Your task to perform on an android device: turn off javascript in the chrome app Image 0: 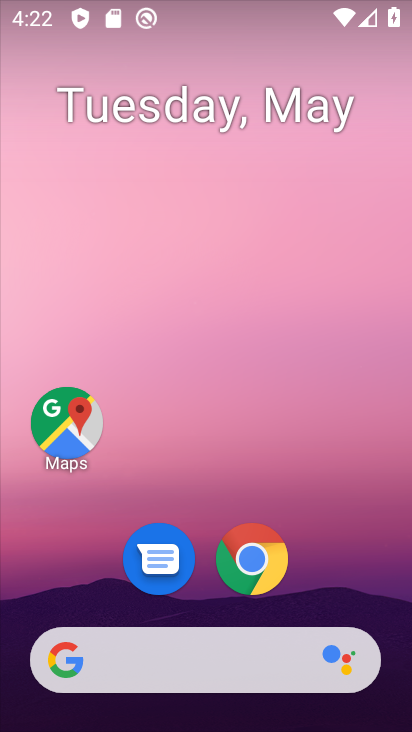
Step 0: click (255, 563)
Your task to perform on an android device: turn off javascript in the chrome app Image 1: 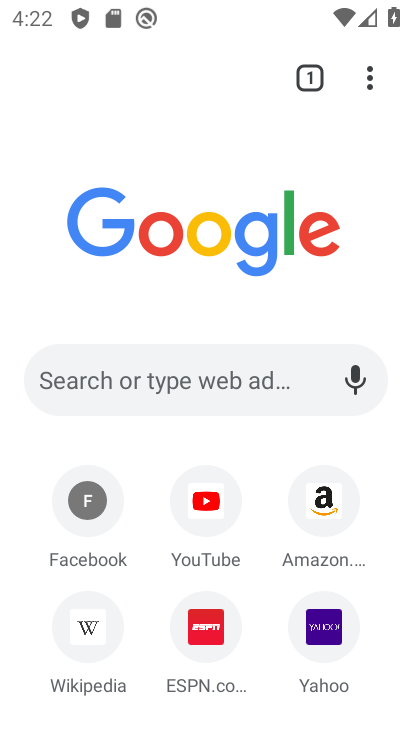
Step 1: click (373, 70)
Your task to perform on an android device: turn off javascript in the chrome app Image 2: 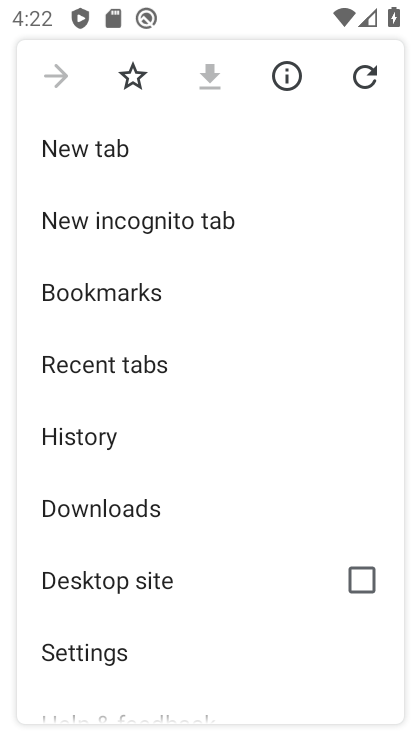
Step 2: click (106, 651)
Your task to perform on an android device: turn off javascript in the chrome app Image 3: 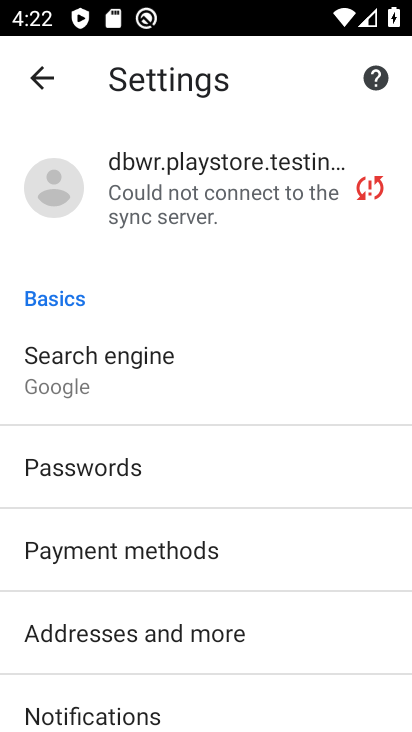
Step 3: drag from (169, 662) to (186, 300)
Your task to perform on an android device: turn off javascript in the chrome app Image 4: 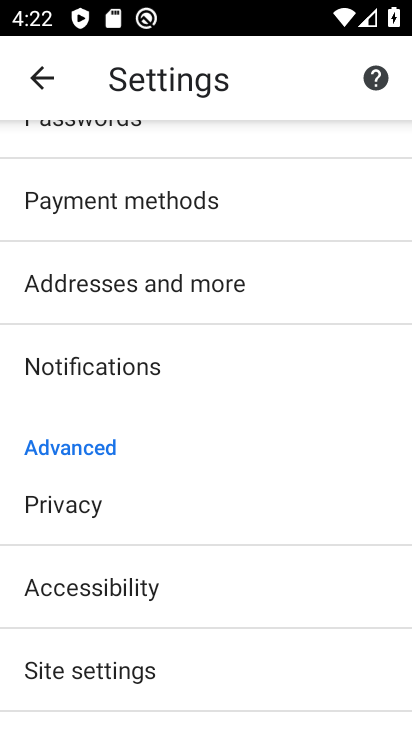
Step 4: click (60, 677)
Your task to perform on an android device: turn off javascript in the chrome app Image 5: 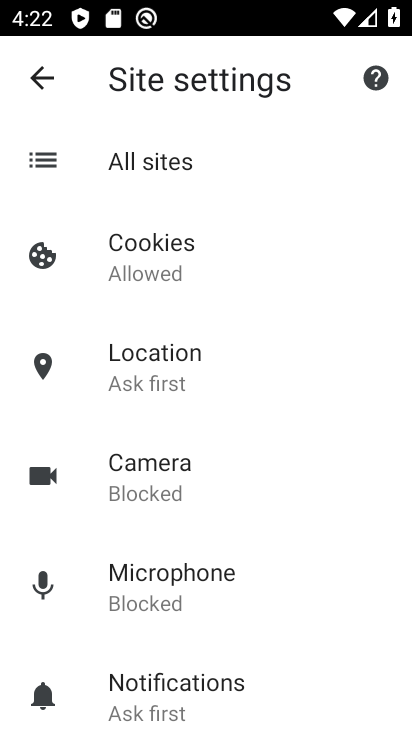
Step 5: drag from (146, 677) to (151, 242)
Your task to perform on an android device: turn off javascript in the chrome app Image 6: 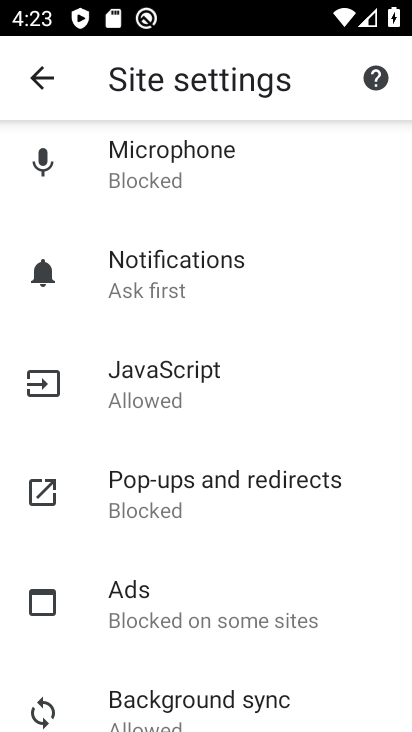
Step 6: click (138, 402)
Your task to perform on an android device: turn off javascript in the chrome app Image 7: 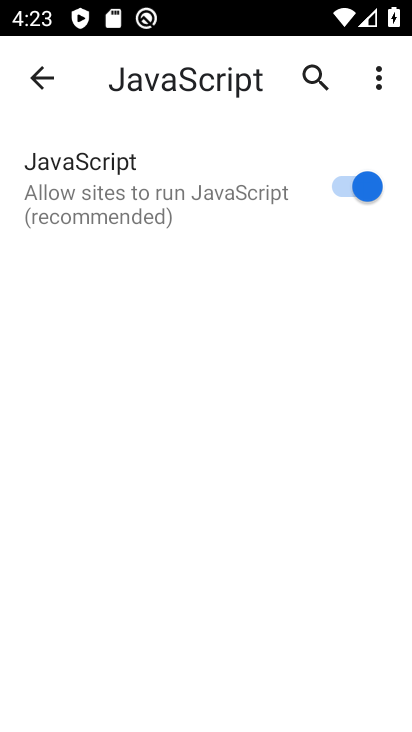
Step 7: click (349, 187)
Your task to perform on an android device: turn off javascript in the chrome app Image 8: 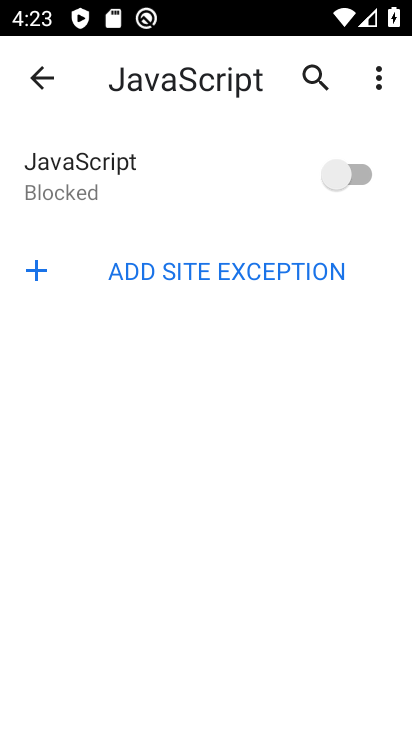
Step 8: task complete